Your task to perform on an android device: stop showing notifications on the lock screen Image 0: 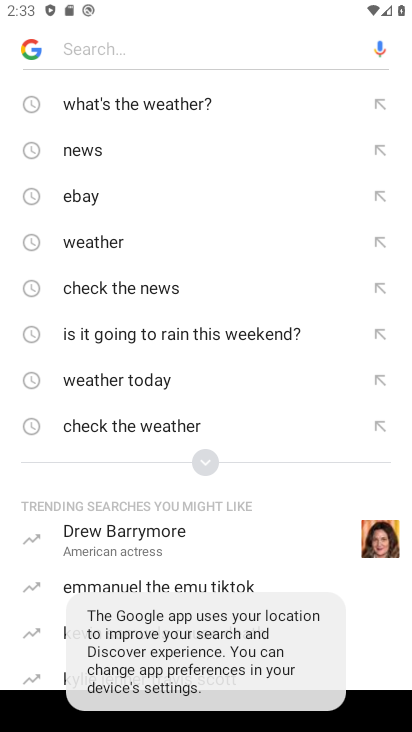
Step 0: press home button
Your task to perform on an android device: stop showing notifications on the lock screen Image 1: 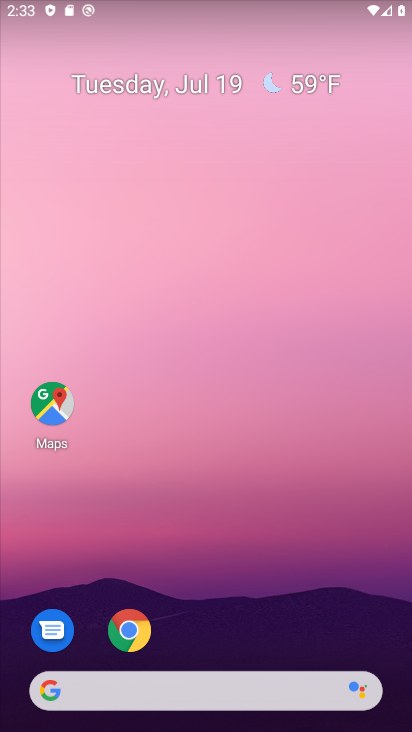
Step 1: drag from (268, 639) to (327, 134)
Your task to perform on an android device: stop showing notifications on the lock screen Image 2: 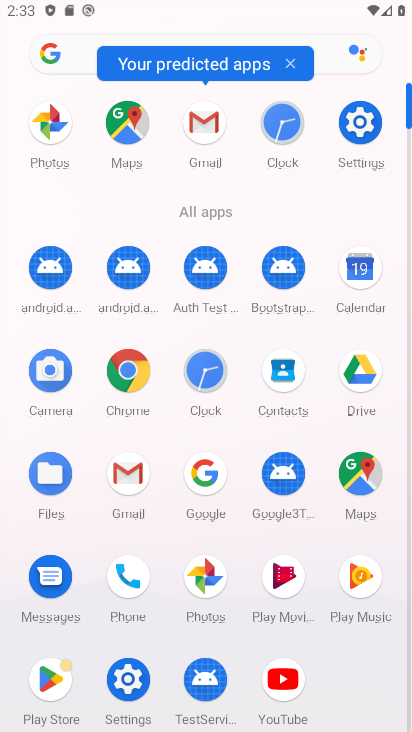
Step 2: click (125, 666)
Your task to perform on an android device: stop showing notifications on the lock screen Image 3: 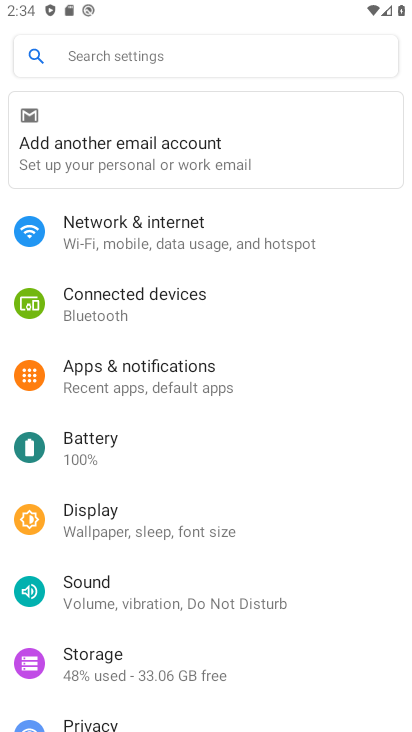
Step 3: click (215, 382)
Your task to perform on an android device: stop showing notifications on the lock screen Image 4: 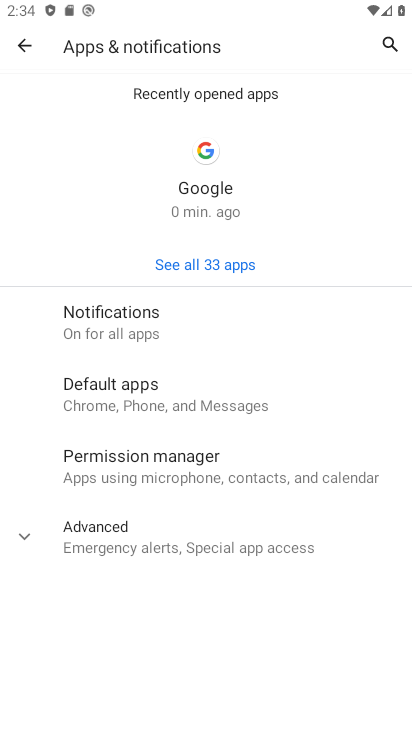
Step 4: click (197, 329)
Your task to perform on an android device: stop showing notifications on the lock screen Image 5: 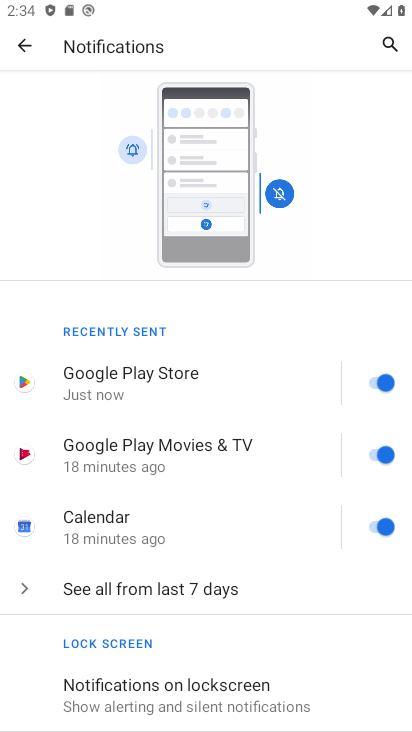
Step 5: drag from (220, 668) to (284, 304)
Your task to perform on an android device: stop showing notifications on the lock screen Image 6: 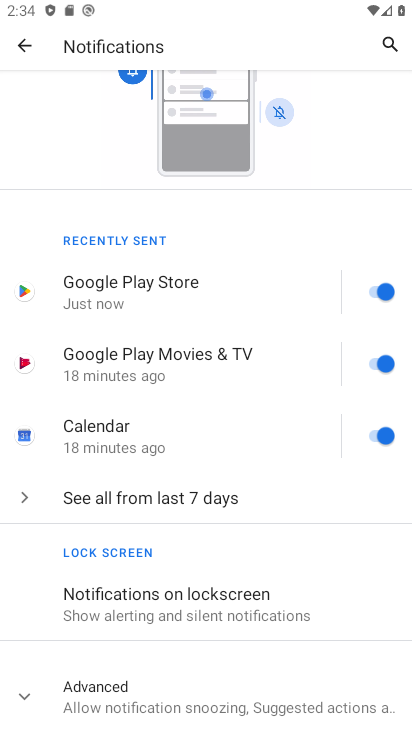
Step 6: click (184, 605)
Your task to perform on an android device: stop showing notifications on the lock screen Image 7: 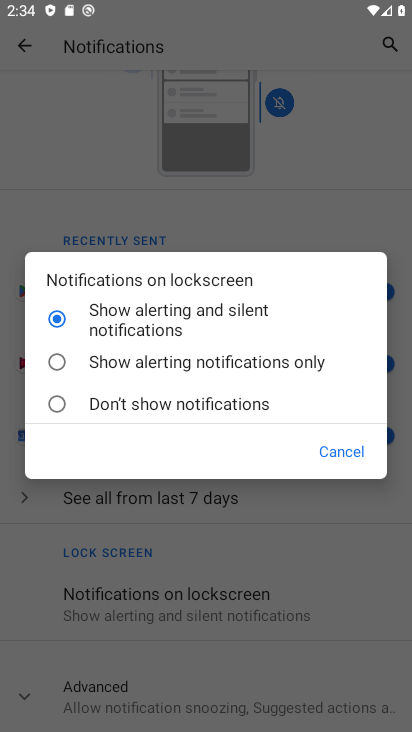
Step 7: click (172, 400)
Your task to perform on an android device: stop showing notifications on the lock screen Image 8: 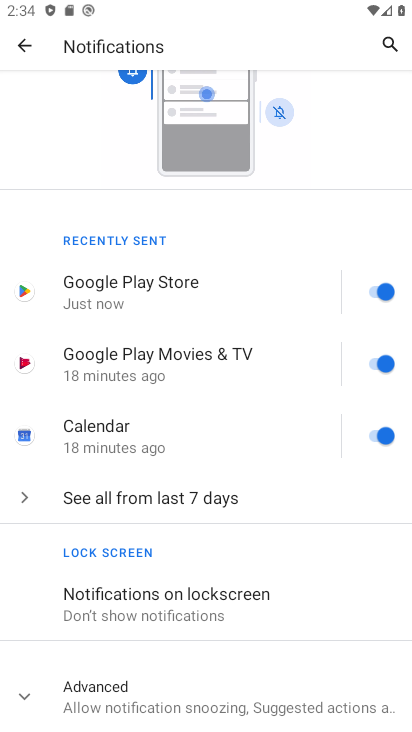
Step 8: task complete